Your task to perform on an android device: Go to wifi settings Image 0: 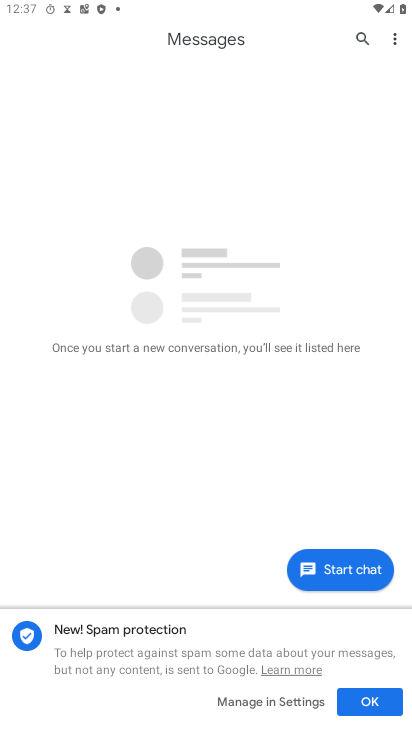
Step 0: press home button
Your task to perform on an android device: Go to wifi settings Image 1: 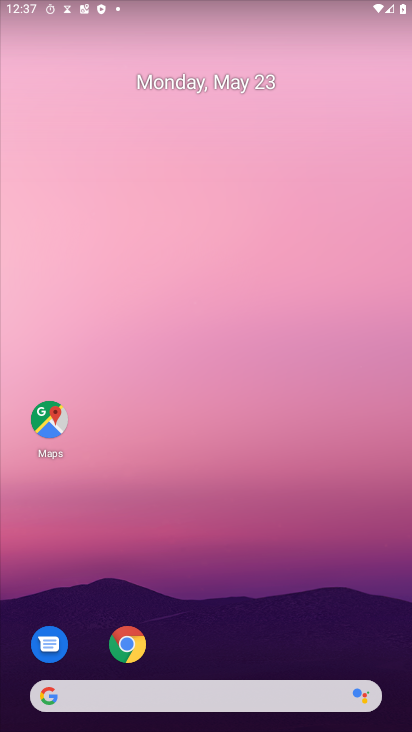
Step 1: drag from (244, 630) to (240, 126)
Your task to perform on an android device: Go to wifi settings Image 2: 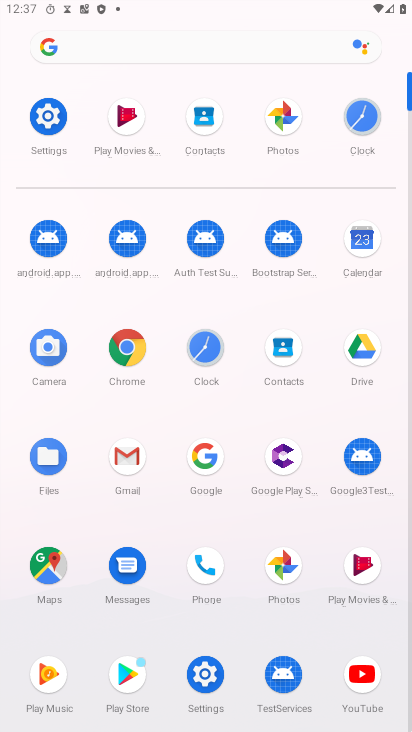
Step 2: click (47, 113)
Your task to perform on an android device: Go to wifi settings Image 3: 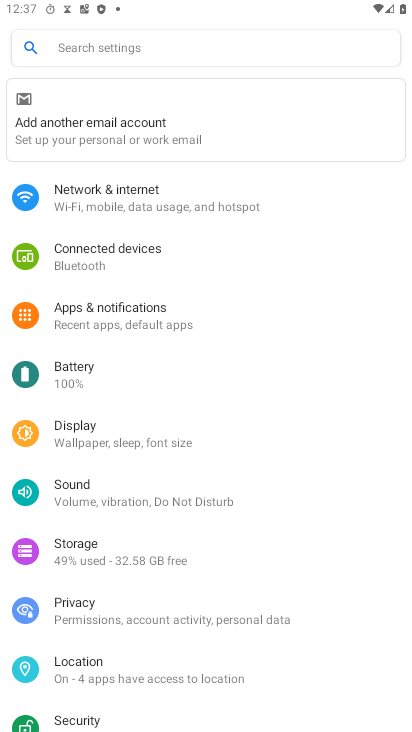
Step 3: click (148, 197)
Your task to perform on an android device: Go to wifi settings Image 4: 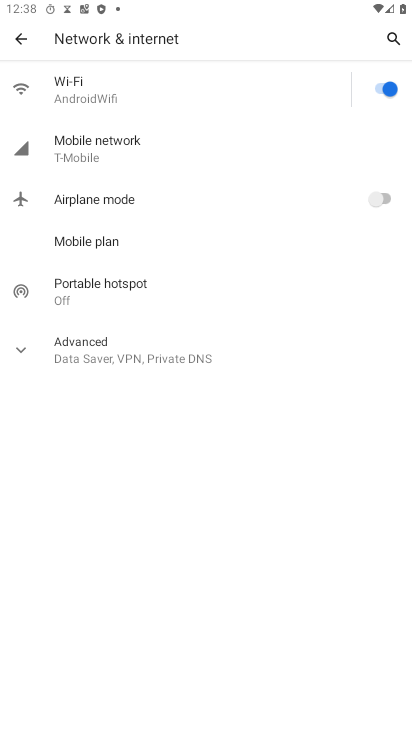
Step 4: click (178, 86)
Your task to perform on an android device: Go to wifi settings Image 5: 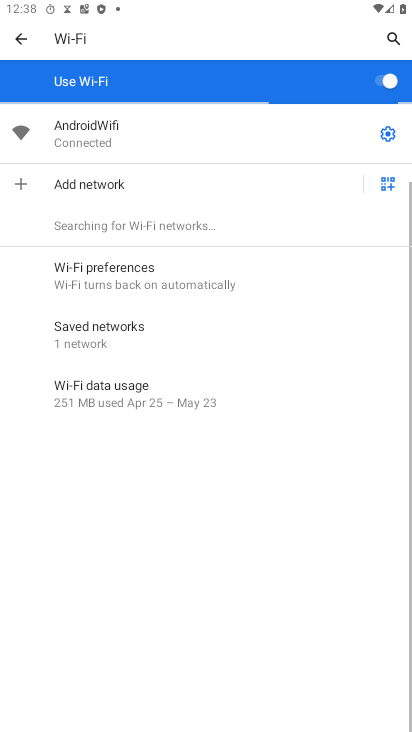
Step 5: task complete